Your task to perform on an android device: move a message to another label in the gmail app Image 0: 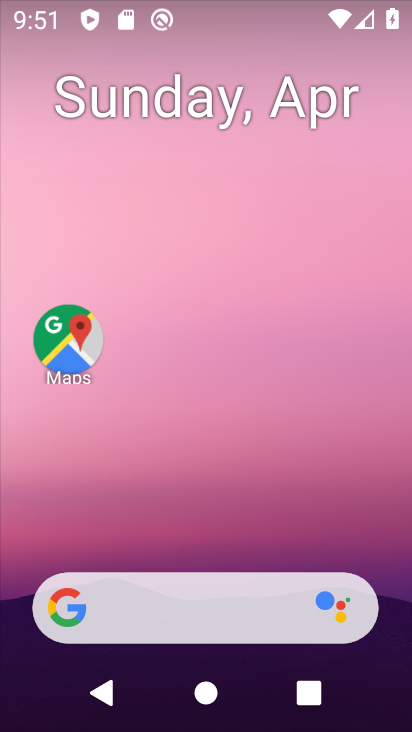
Step 0: drag from (201, 725) to (212, 177)
Your task to perform on an android device: move a message to another label in the gmail app Image 1: 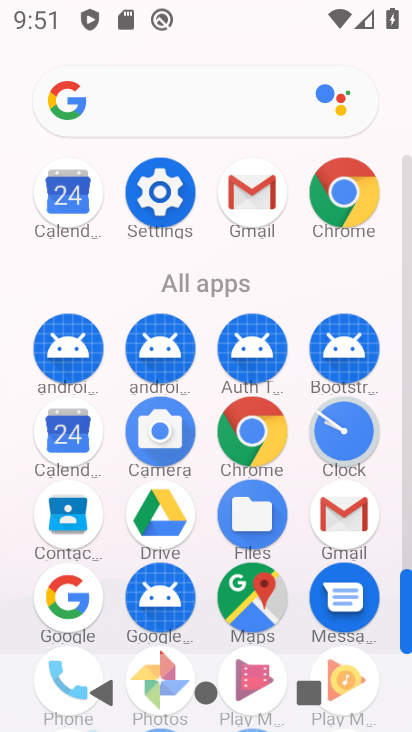
Step 1: click (254, 201)
Your task to perform on an android device: move a message to another label in the gmail app Image 2: 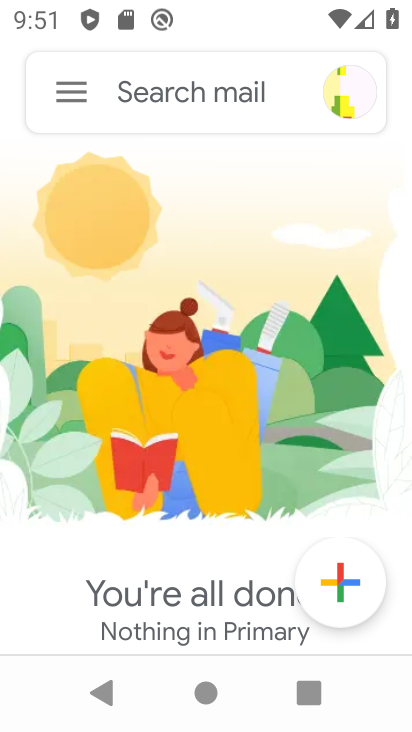
Step 2: click (64, 85)
Your task to perform on an android device: move a message to another label in the gmail app Image 3: 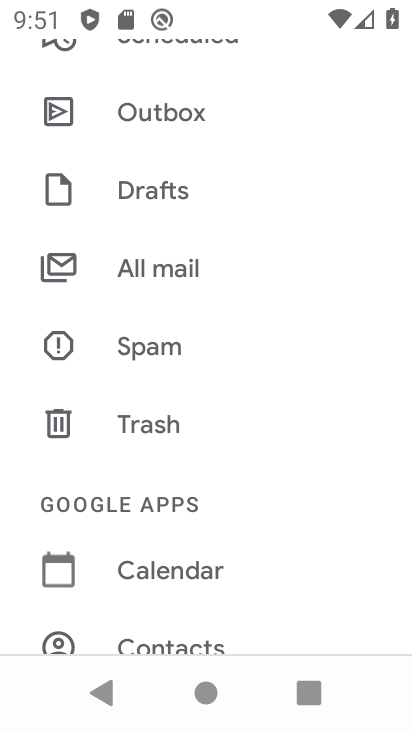
Step 3: drag from (242, 85) to (254, 536)
Your task to perform on an android device: move a message to another label in the gmail app Image 4: 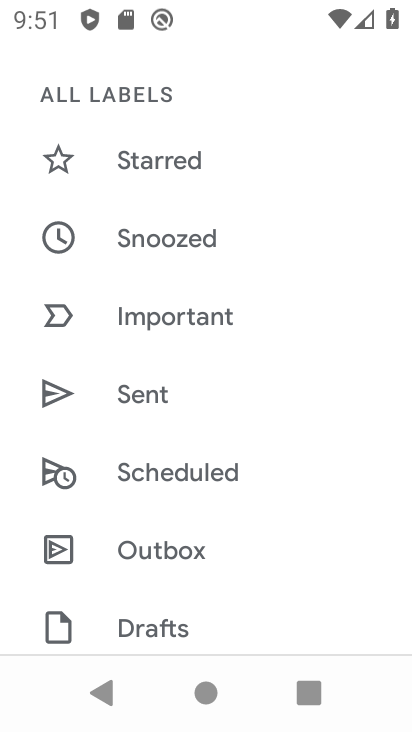
Step 4: drag from (256, 107) to (257, 545)
Your task to perform on an android device: move a message to another label in the gmail app Image 5: 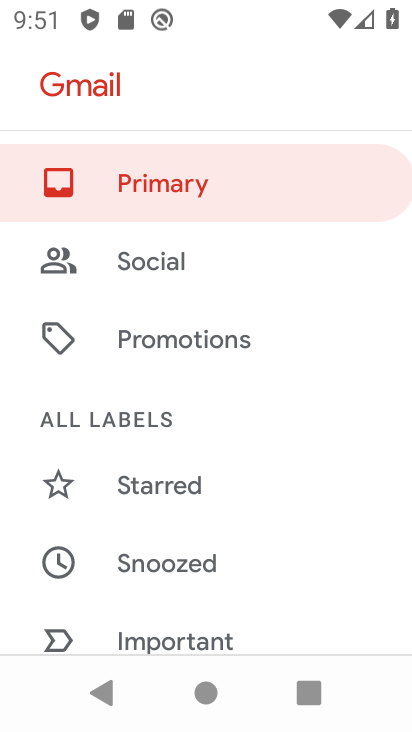
Step 5: drag from (253, 147) to (252, 519)
Your task to perform on an android device: move a message to another label in the gmail app Image 6: 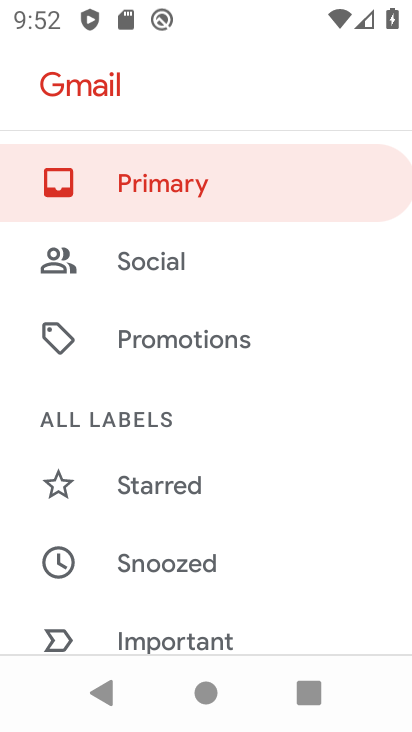
Step 6: click (173, 181)
Your task to perform on an android device: move a message to another label in the gmail app Image 7: 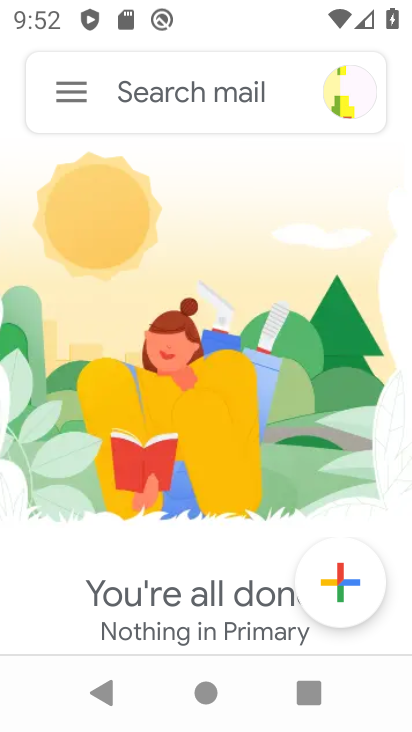
Step 7: task complete